Your task to perform on an android device: open device folders in google photos Image 0: 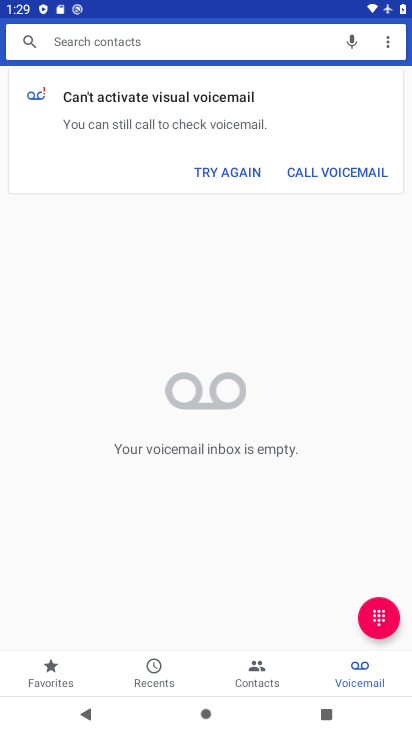
Step 0: press home button
Your task to perform on an android device: open device folders in google photos Image 1: 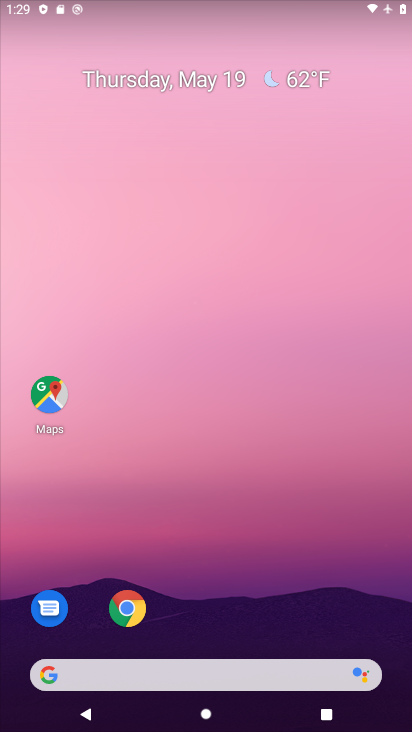
Step 1: drag from (308, 642) to (240, 126)
Your task to perform on an android device: open device folders in google photos Image 2: 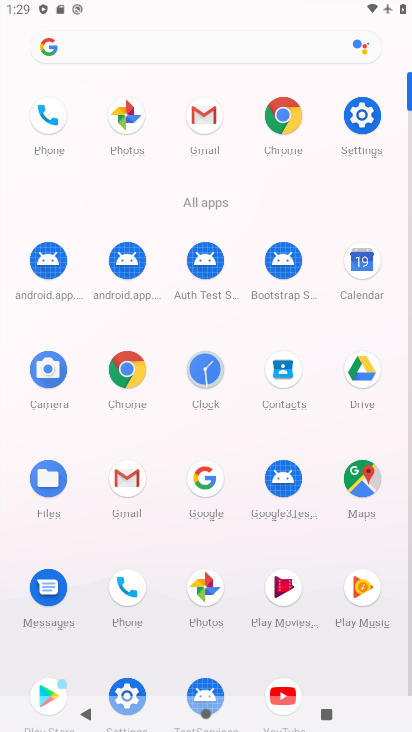
Step 2: click (142, 134)
Your task to perform on an android device: open device folders in google photos Image 3: 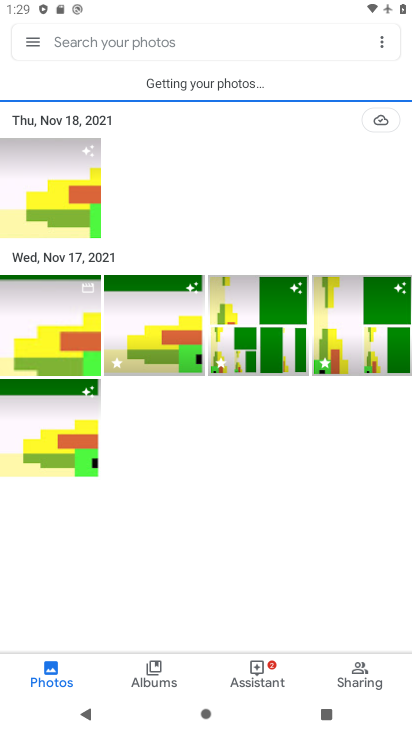
Step 3: click (42, 44)
Your task to perform on an android device: open device folders in google photos Image 4: 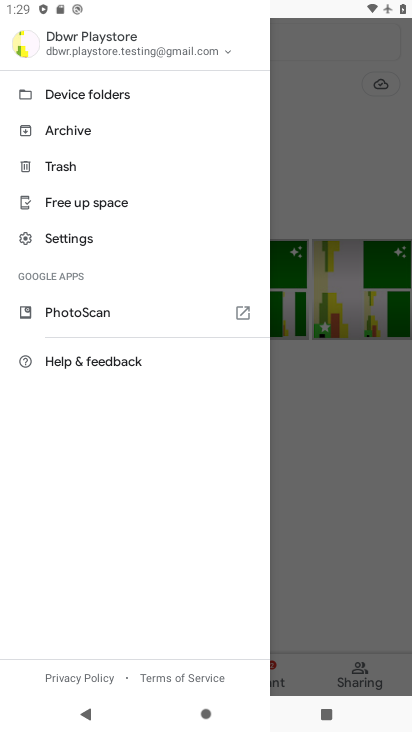
Step 4: click (67, 79)
Your task to perform on an android device: open device folders in google photos Image 5: 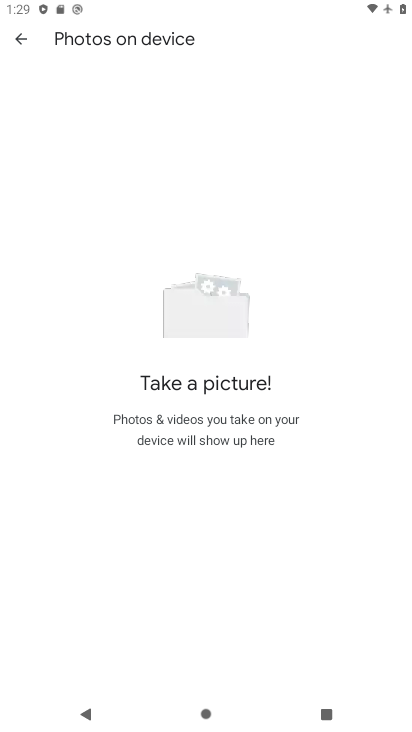
Step 5: task complete